Your task to perform on an android device: Open the map Image 0: 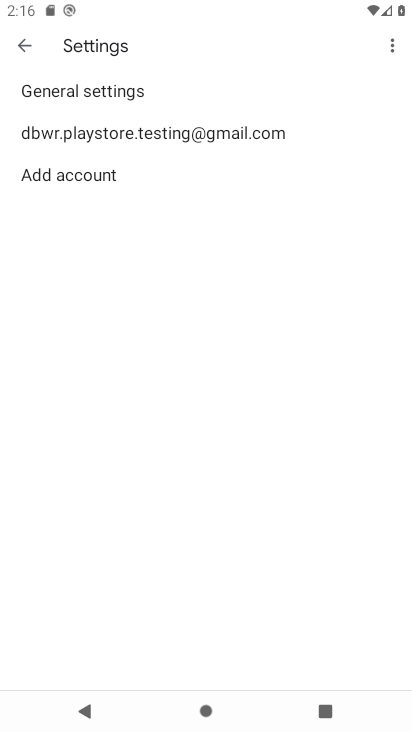
Step 0: press home button
Your task to perform on an android device: Open the map Image 1: 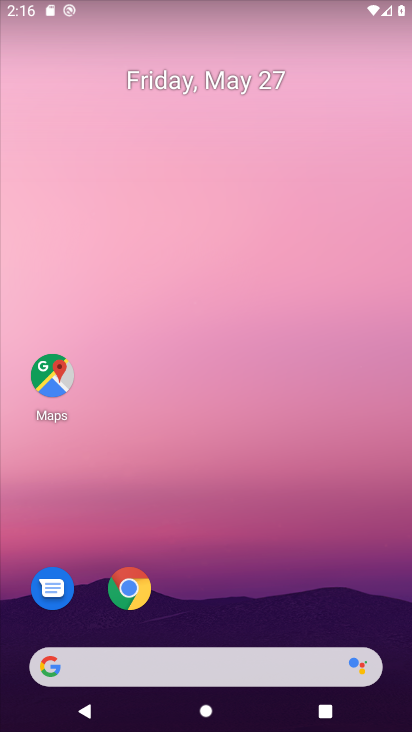
Step 1: click (53, 379)
Your task to perform on an android device: Open the map Image 2: 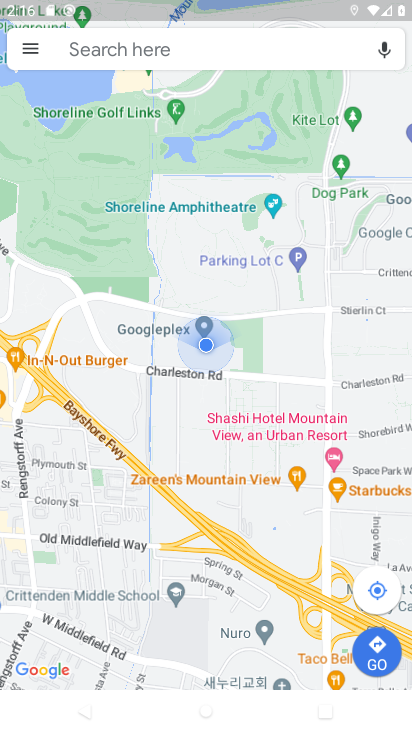
Step 2: task complete